Your task to perform on an android device: Search for Italian restaurants on Maps Image 0: 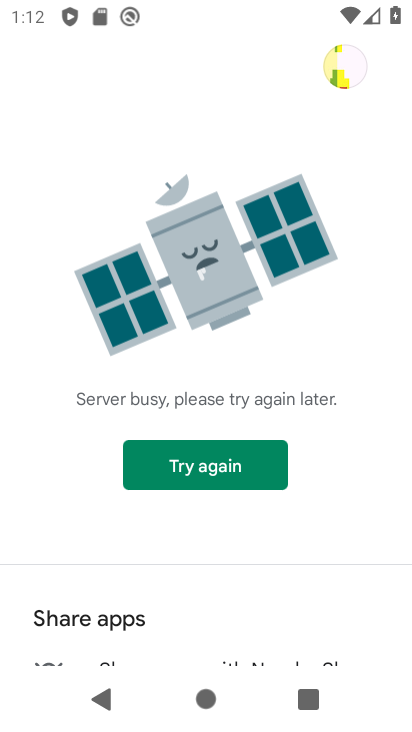
Step 0: press home button
Your task to perform on an android device: Search for Italian restaurants on Maps Image 1: 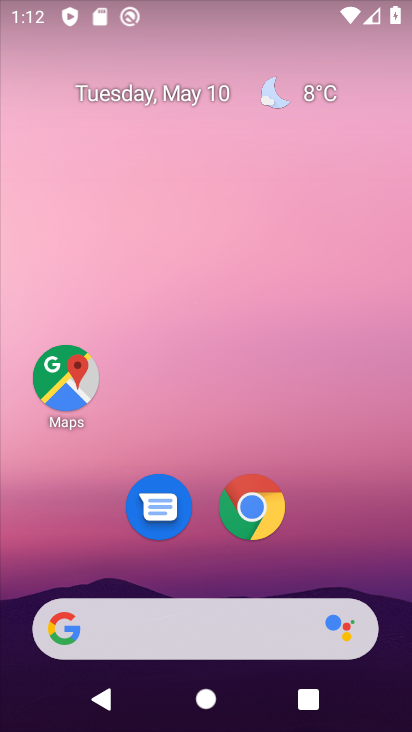
Step 1: drag from (270, 670) to (168, 188)
Your task to perform on an android device: Search for Italian restaurants on Maps Image 2: 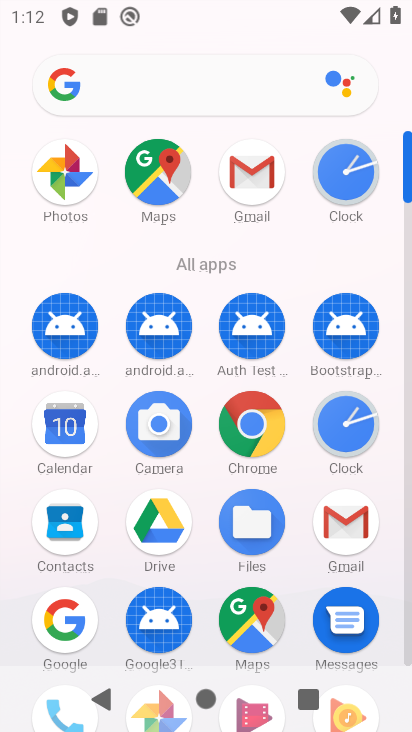
Step 2: click (152, 180)
Your task to perform on an android device: Search for Italian restaurants on Maps Image 3: 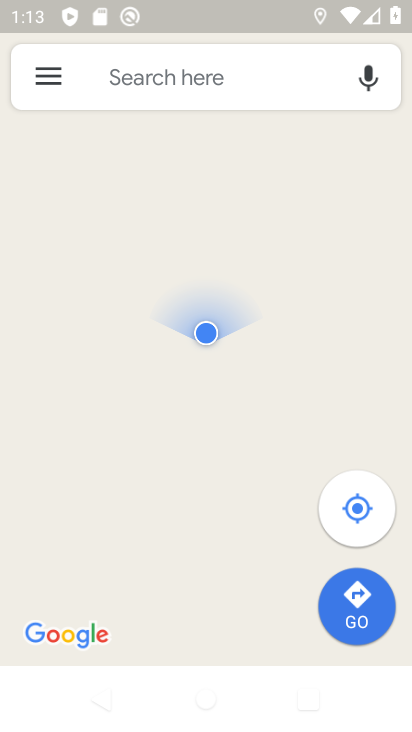
Step 3: click (128, 77)
Your task to perform on an android device: Search for Italian restaurants on Maps Image 4: 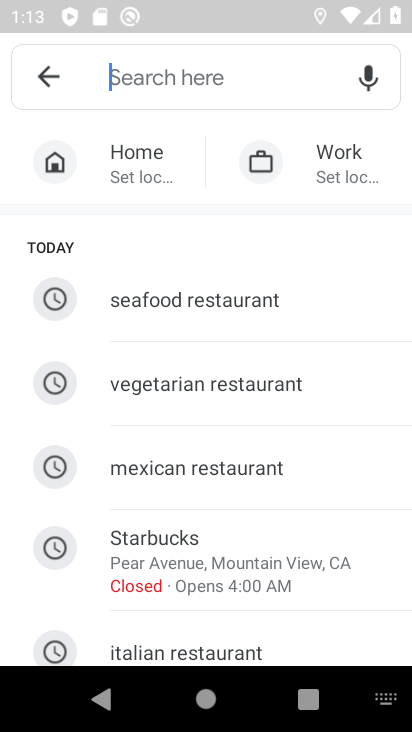
Step 4: click (394, 700)
Your task to perform on an android device: Search for Italian restaurants on Maps Image 5: 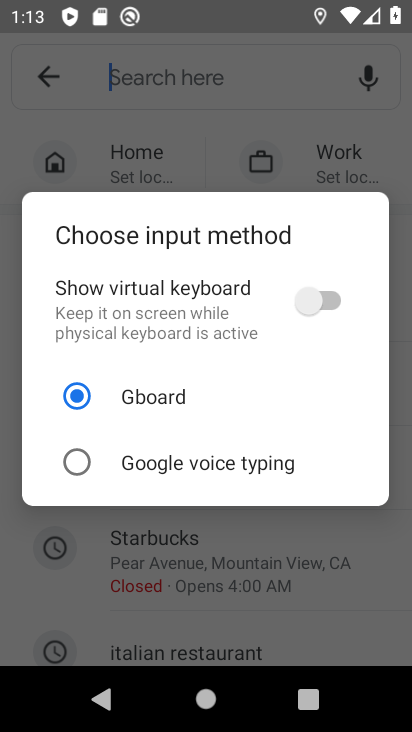
Step 5: click (312, 308)
Your task to perform on an android device: Search for Italian restaurants on Maps Image 6: 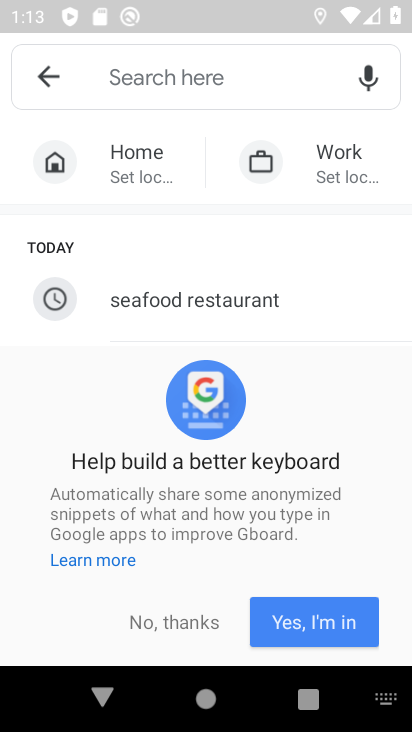
Step 6: click (189, 627)
Your task to perform on an android device: Search for Italian restaurants on Maps Image 7: 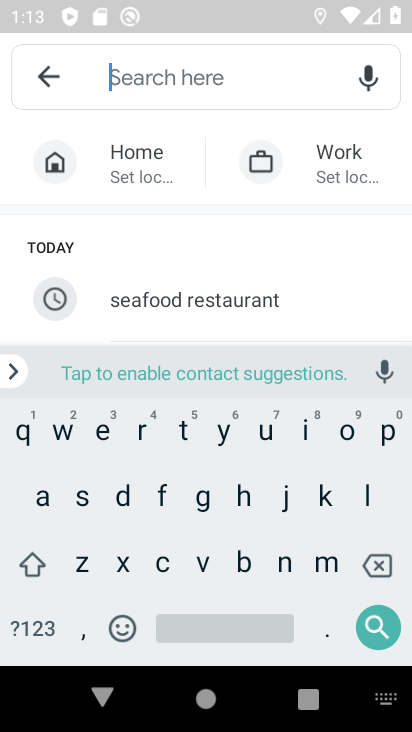
Step 7: click (304, 430)
Your task to perform on an android device: Search for Italian restaurants on Maps Image 8: 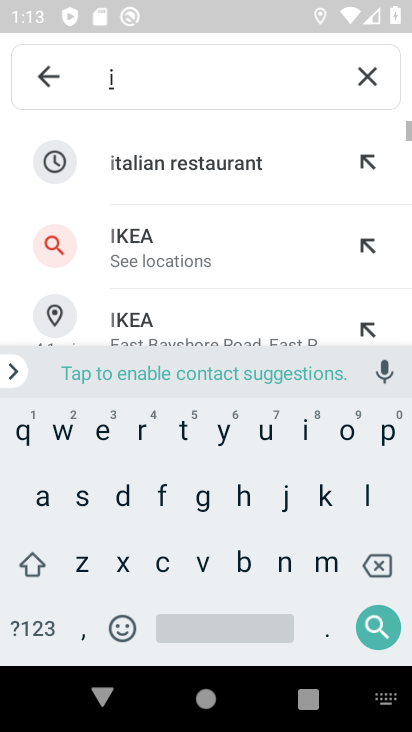
Step 8: click (140, 169)
Your task to perform on an android device: Search for Italian restaurants on Maps Image 9: 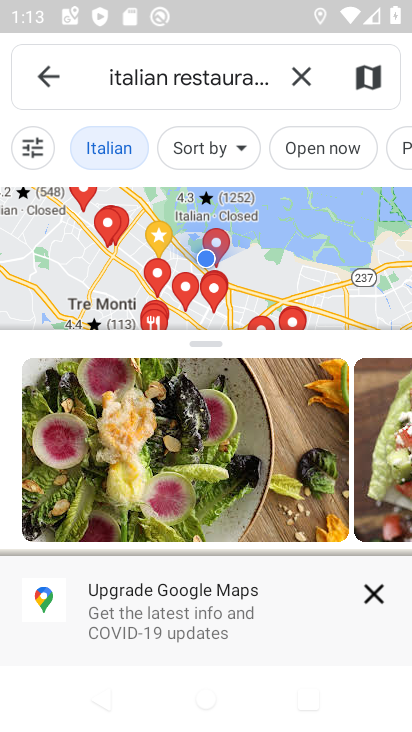
Step 9: click (375, 604)
Your task to perform on an android device: Search for Italian restaurants on Maps Image 10: 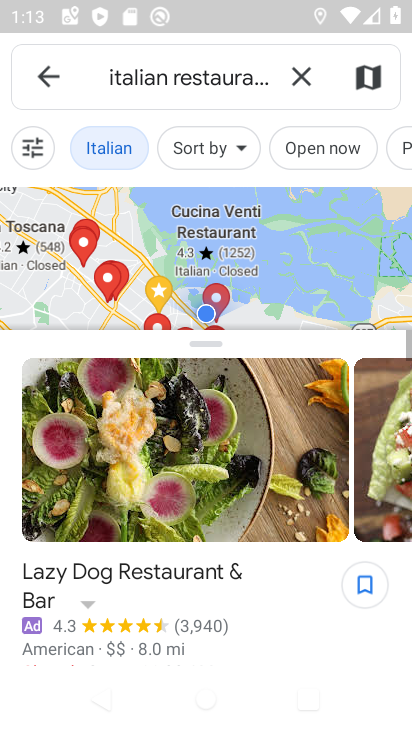
Step 10: click (134, 258)
Your task to perform on an android device: Search for Italian restaurants on Maps Image 11: 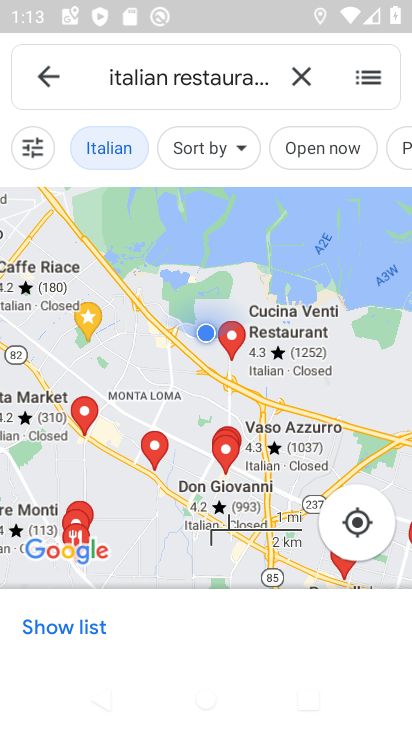
Step 11: task complete